Your task to perform on an android device: Open Maps and search for coffee Image 0: 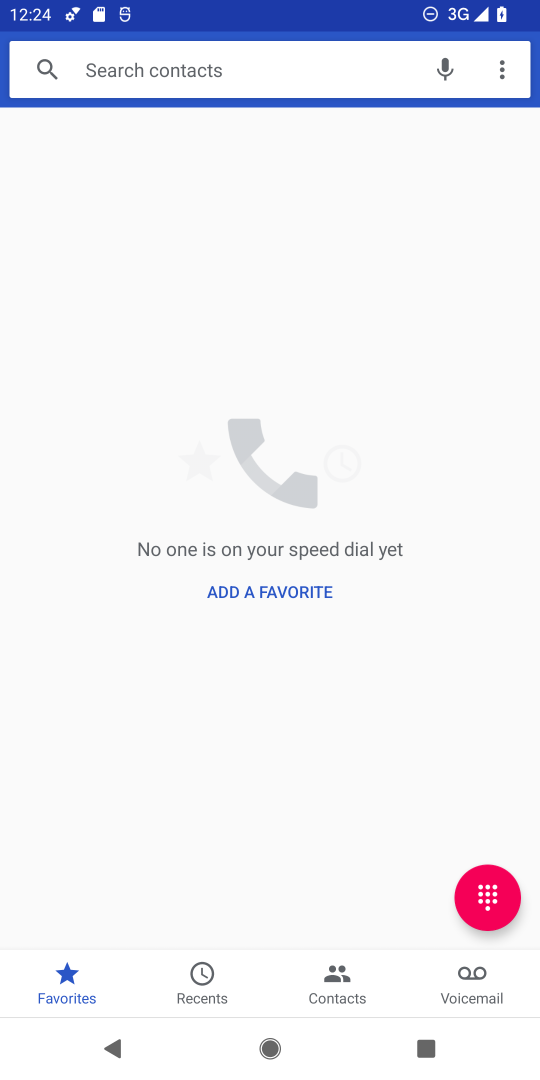
Step 0: press home button
Your task to perform on an android device: Open Maps and search for coffee Image 1: 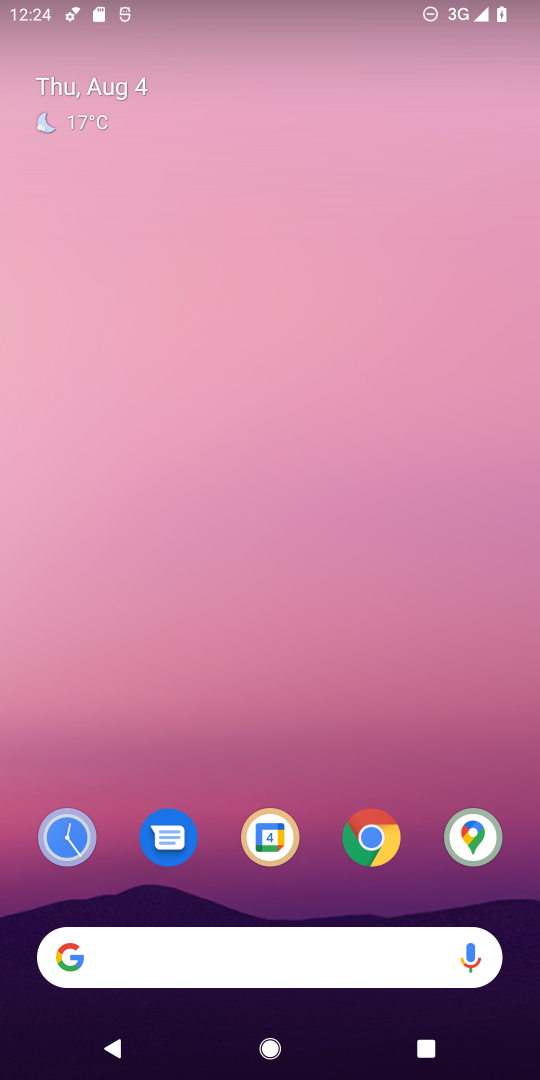
Step 1: drag from (425, 687) to (278, 53)
Your task to perform on an android device: Open Maps and search for coffee Image 2: 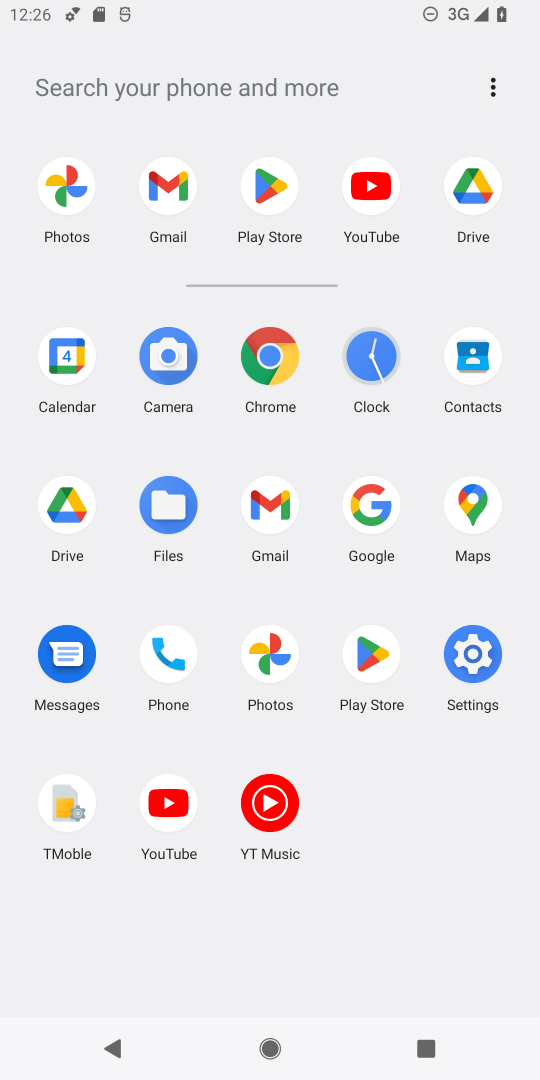
Step 2: click (488, 506)
Your task to perform on an android device: Open Maps and search for coffee Image 3: 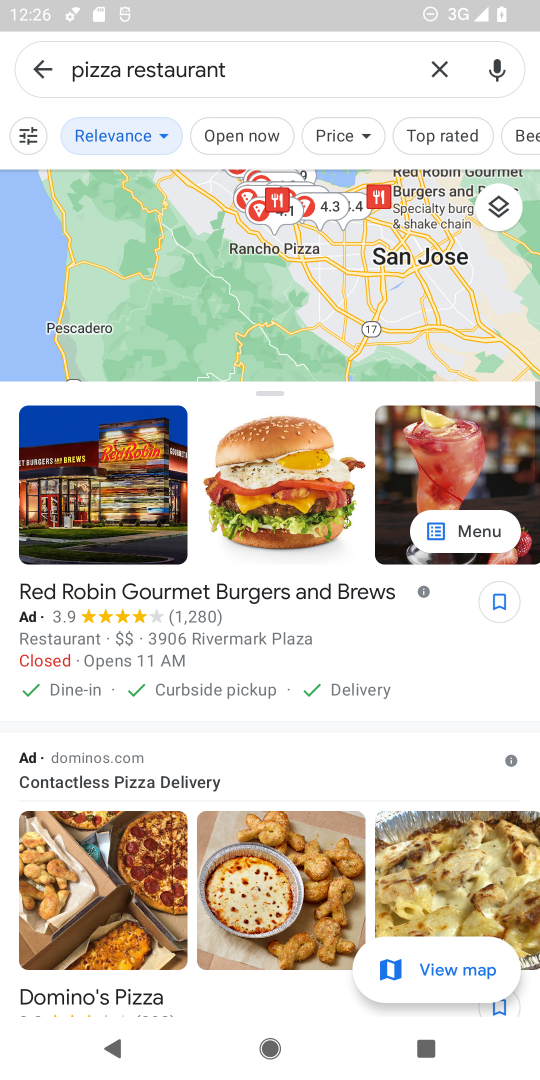
Step 3: click (440, 60)
Your task to perform on an android device: Open Maps and search for coffee Image 4: 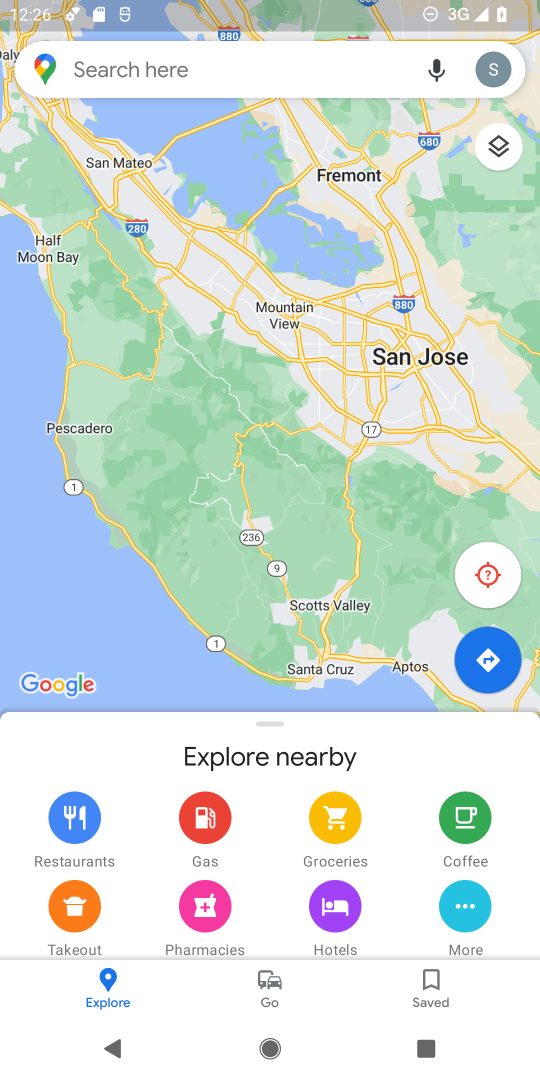
Step 4: click (163, 58)
Your task to perform on an android device: Open Maps and search for coffee Image 5: 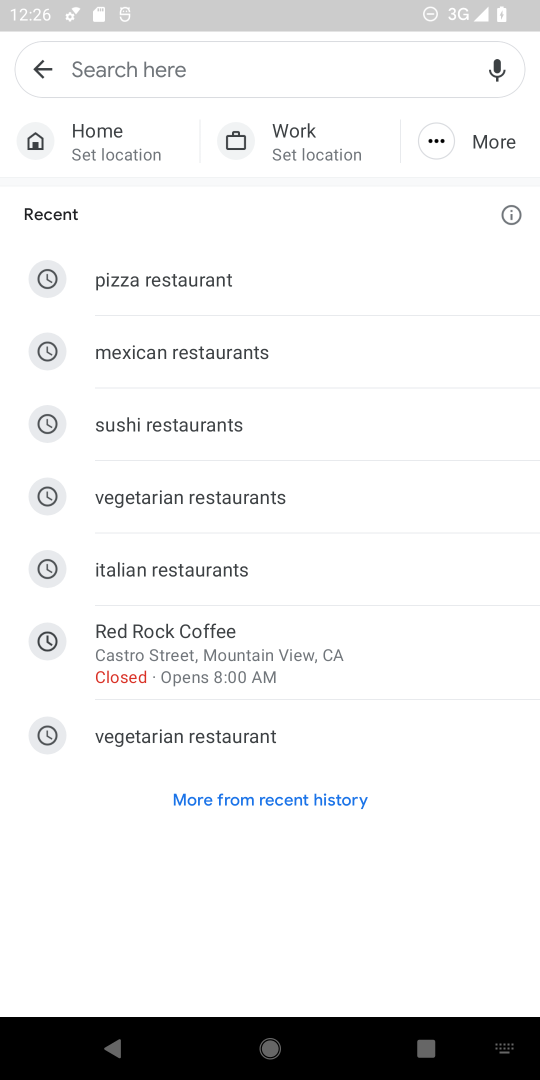
Step 5: type "coffee"
Your task to perform on an android device: Open Maps and search for coffee Image 6: 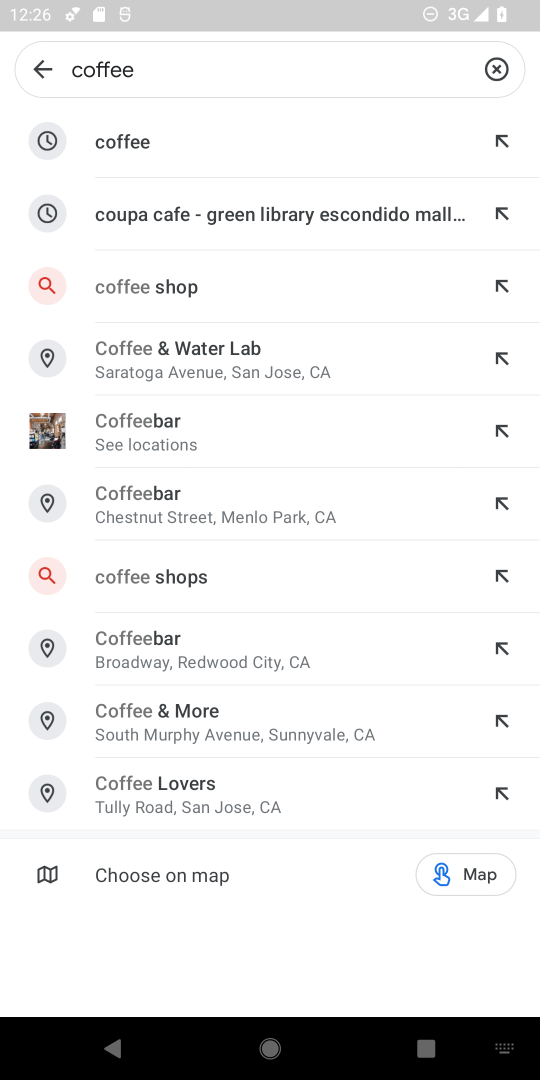
Step 6: click (133, 138)
Your task to perform on an android device: Open Maps and search for coffee Image 7: 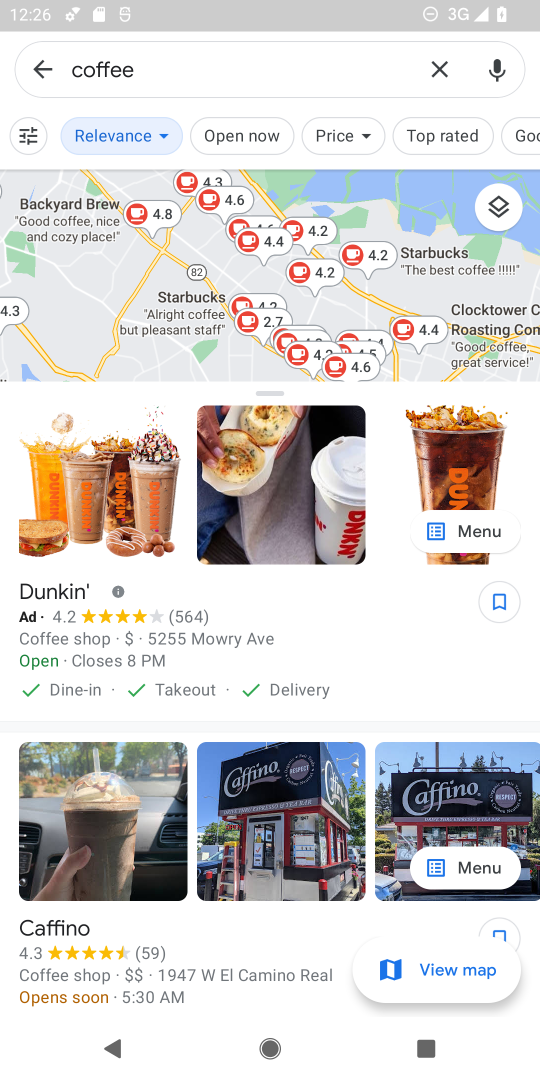
Step 7: task complete